Your task to perform on an android device: Open Yahoo.com Image 0: 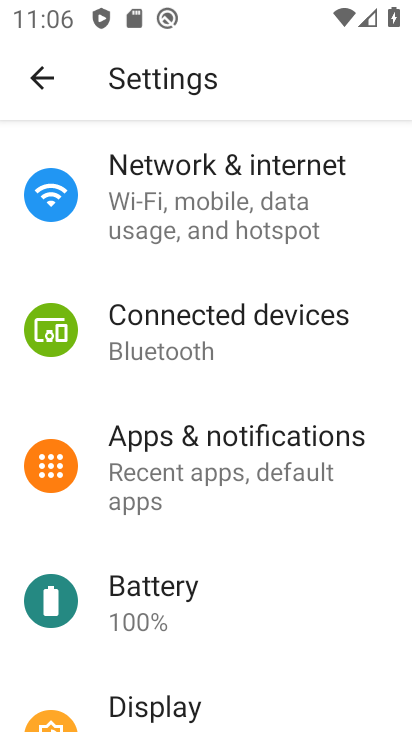
Step 0: press home button
Your task to perform on an android device: Open Yahoo.com Image 1: 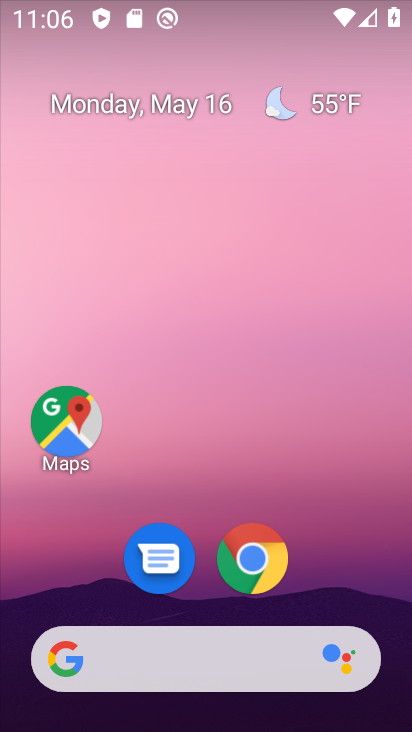
Step 1: click (269, 561)
Your task to perform on an android device: Open Yahoo.com Image 2: 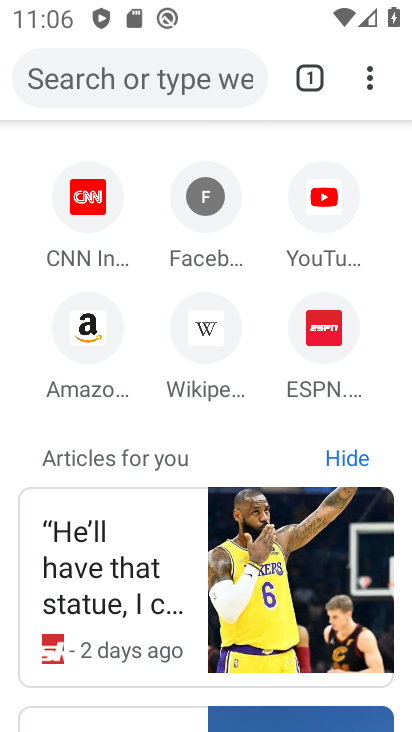
Step 2: click (184, 80)
Your task to perform on an android device: Open Yahoo.com Image 3: 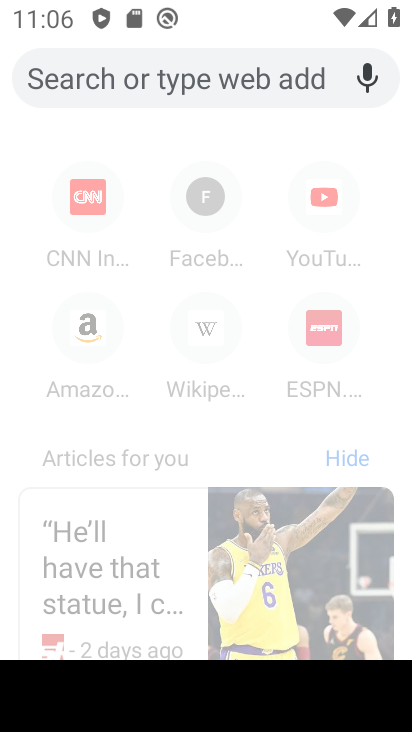
Step 3: type "yahoo.com"
Your task to perform on an android device: Open Yahoo.com Image 4: 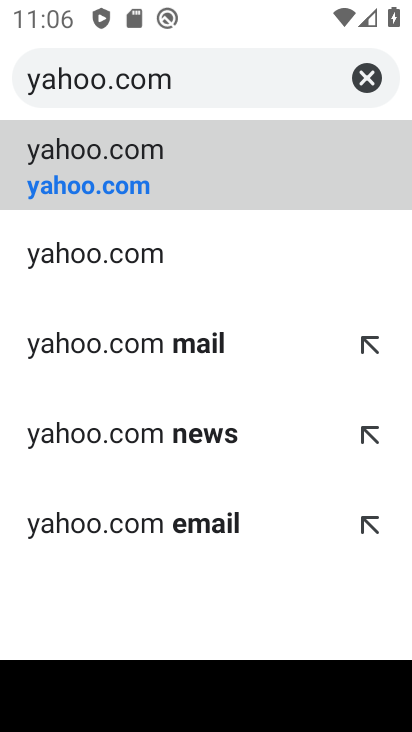
Step 4: click (150, 161)
Your task to perform on an android device: Open Yahoo.com Image 5: 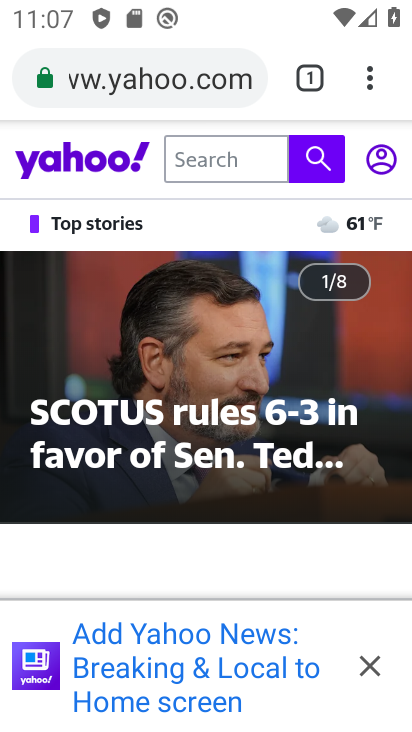
Step 5: task complete